Your task to perform on an android device: Go to internet settings Image 0: 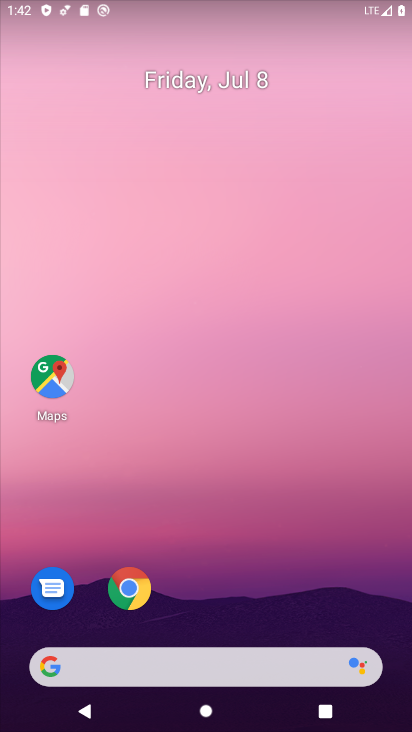
Step 0: drag from (235, 625) to (270, 90)
Your task to perform on an android device: Go to internet settings Image 1: 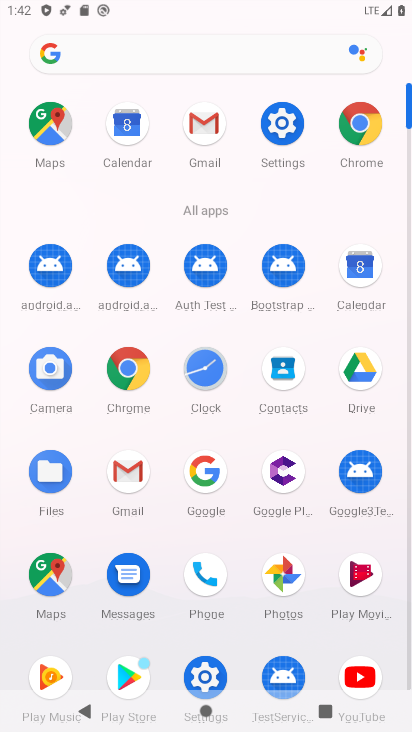
Step 1: click (290, 131)
Your task to perform on an android device: Go to internet settings Image 2: 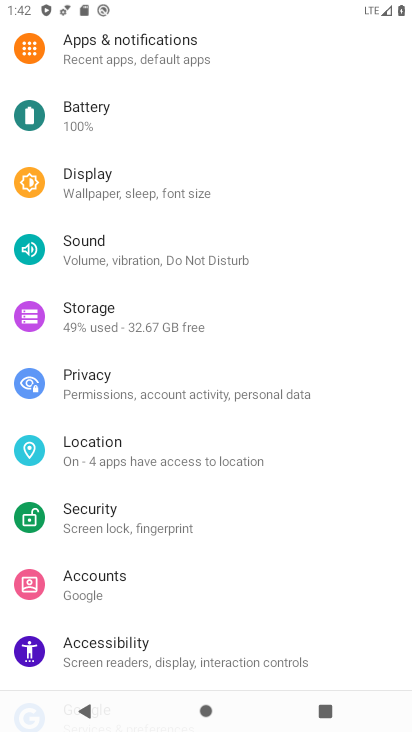
Step 2: drag from (240, 97) to (157, 710)
Your task to perform on an android device: Go to internet settings Image 3: 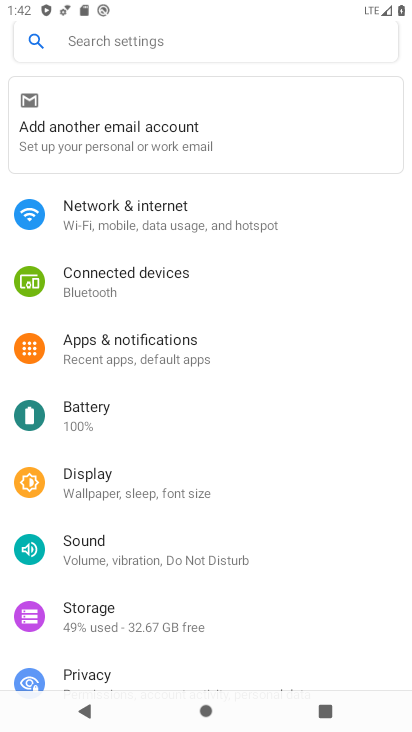
Step 3: click (124, 206)
Your task to perform on an android device: Go to internet settings Image 4: 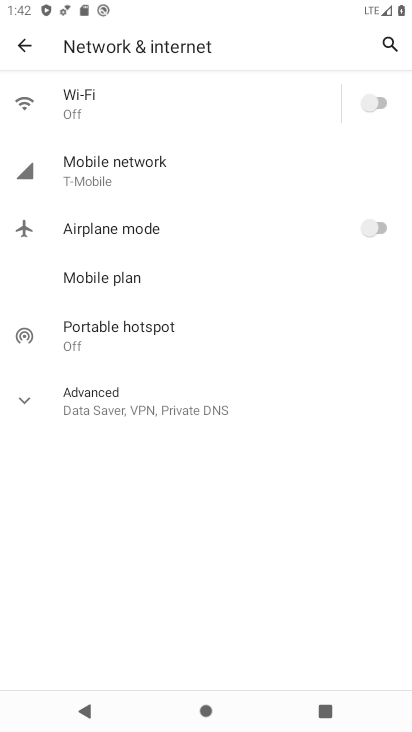
Step 4: task complete